Your task to perform on an android device: Open Yahoo.com Image 0: 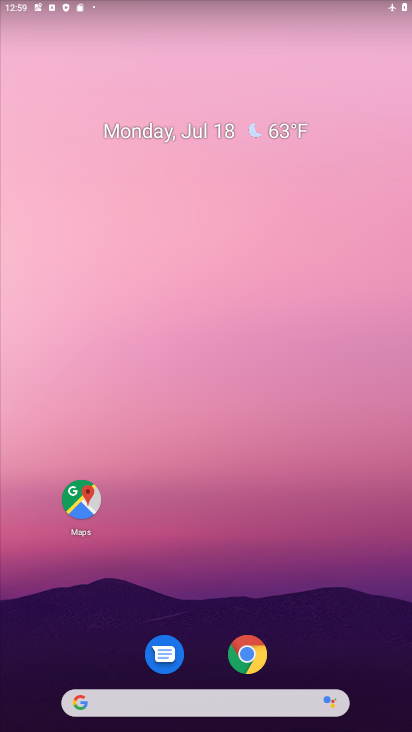
Step 0: click (248, 636)
Your task to perform on an android device: Open Yahoo.com Image 1: 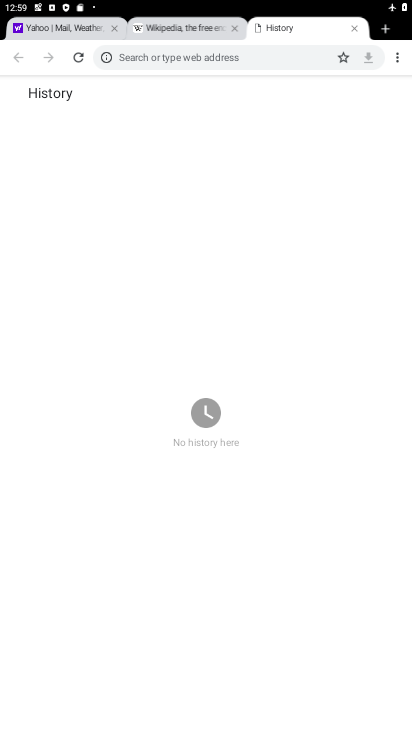
Step 1: click (380, 27)
Your task to perform on an android device: Open Yahoo.com Image 2: 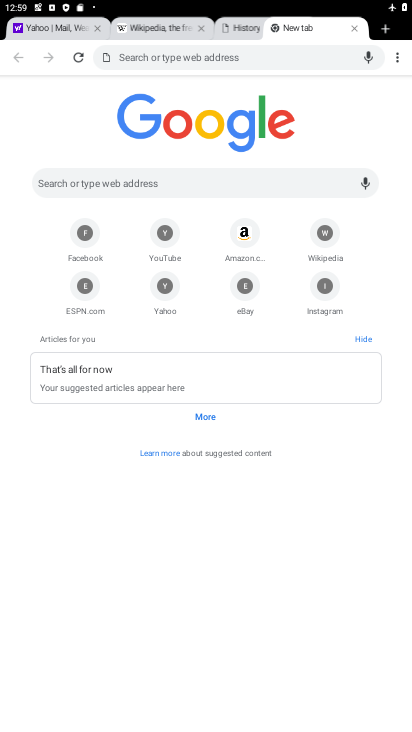
Step 2: click (403, 99)
Your task to perform on an android device: Open Yahoo.com Image 3: 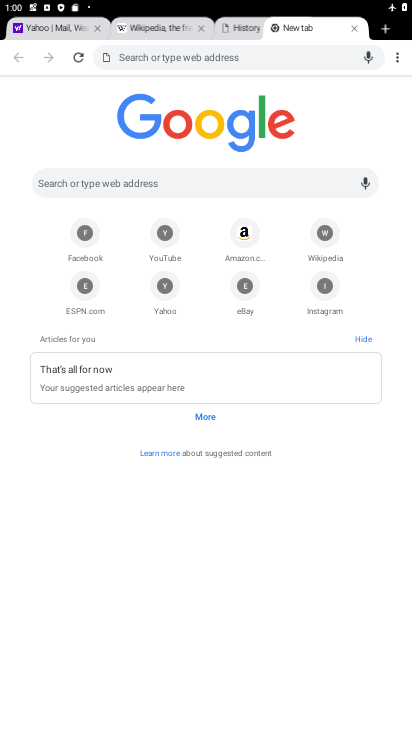
Step 3: click (388, 25)
Your task to perform on an android device: Open Yahoo.com Image 4: 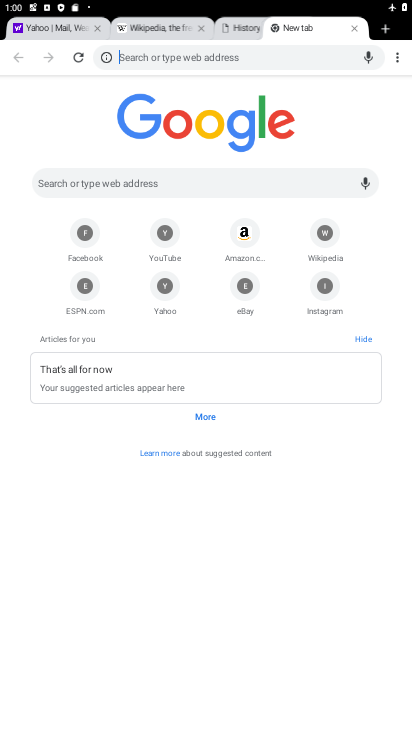
Step 4: click (161, 291)
Your task to perform on an android device: Open Yahoo.com Image 5: 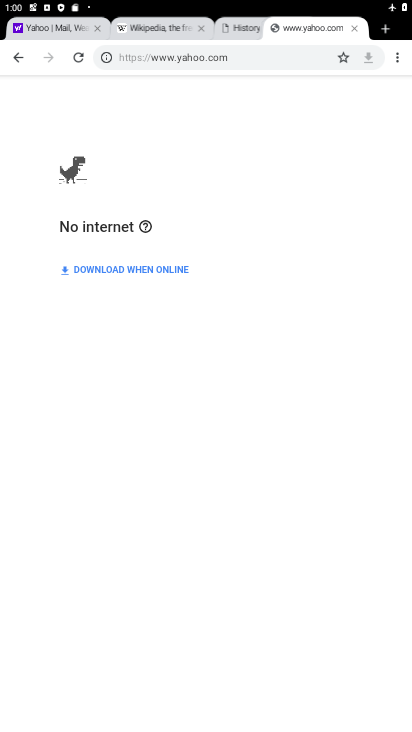
Step 5: task complete